Your task to perform on an android device: Empty the shopping cart on costco.com. Add logitech g502 to the cart on costco.com, then select checkout. Image 0: 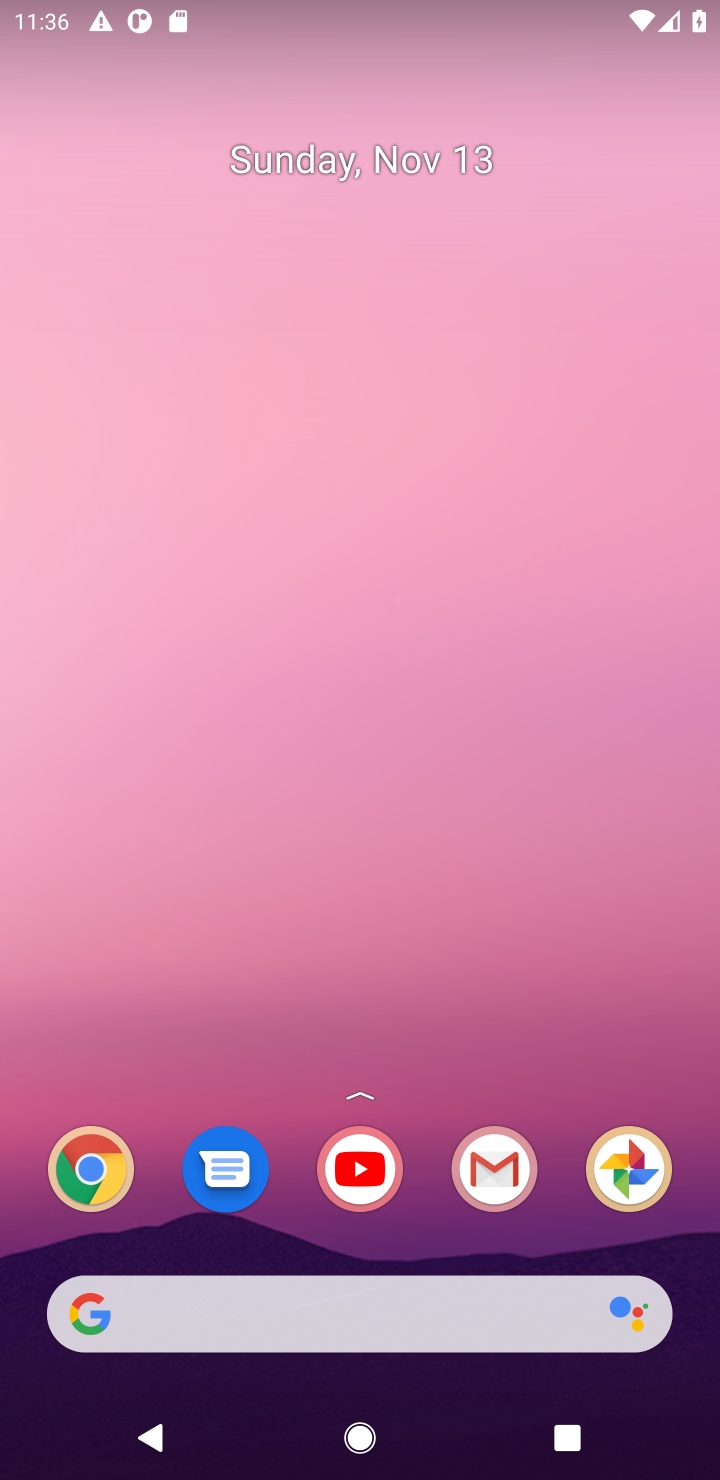
Step 0: drag from (477, 1029) to (600, 17)
Your task to perform on an android device: Empty the shopping cart on costco.com. Add logitech g502 to the cart on costco.com, then select checkout. Image 1: 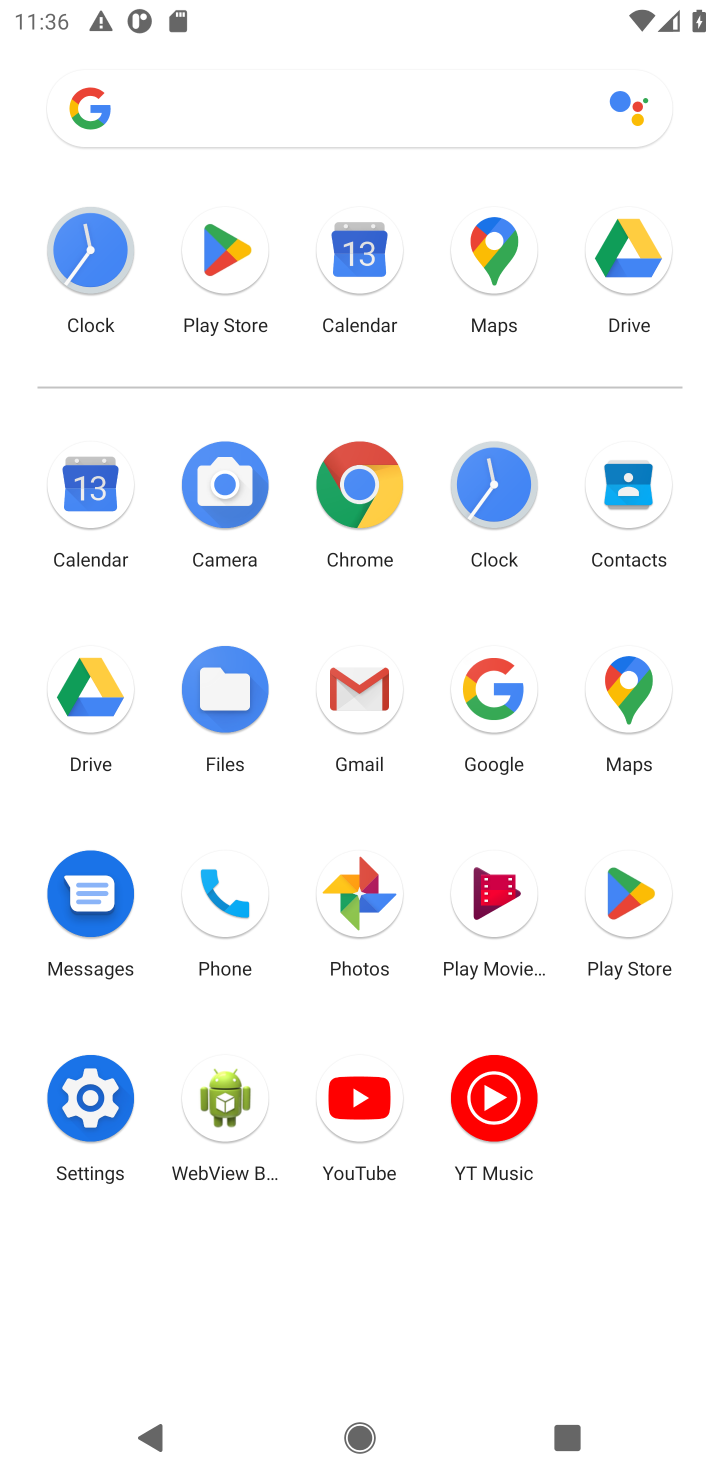
Step 1: click (354, 483)
Your task to perform on an android device: Empty the shopping cart on costco.com. Add logitech g502 to the cart on costco.com, then select checkout. Image 2: 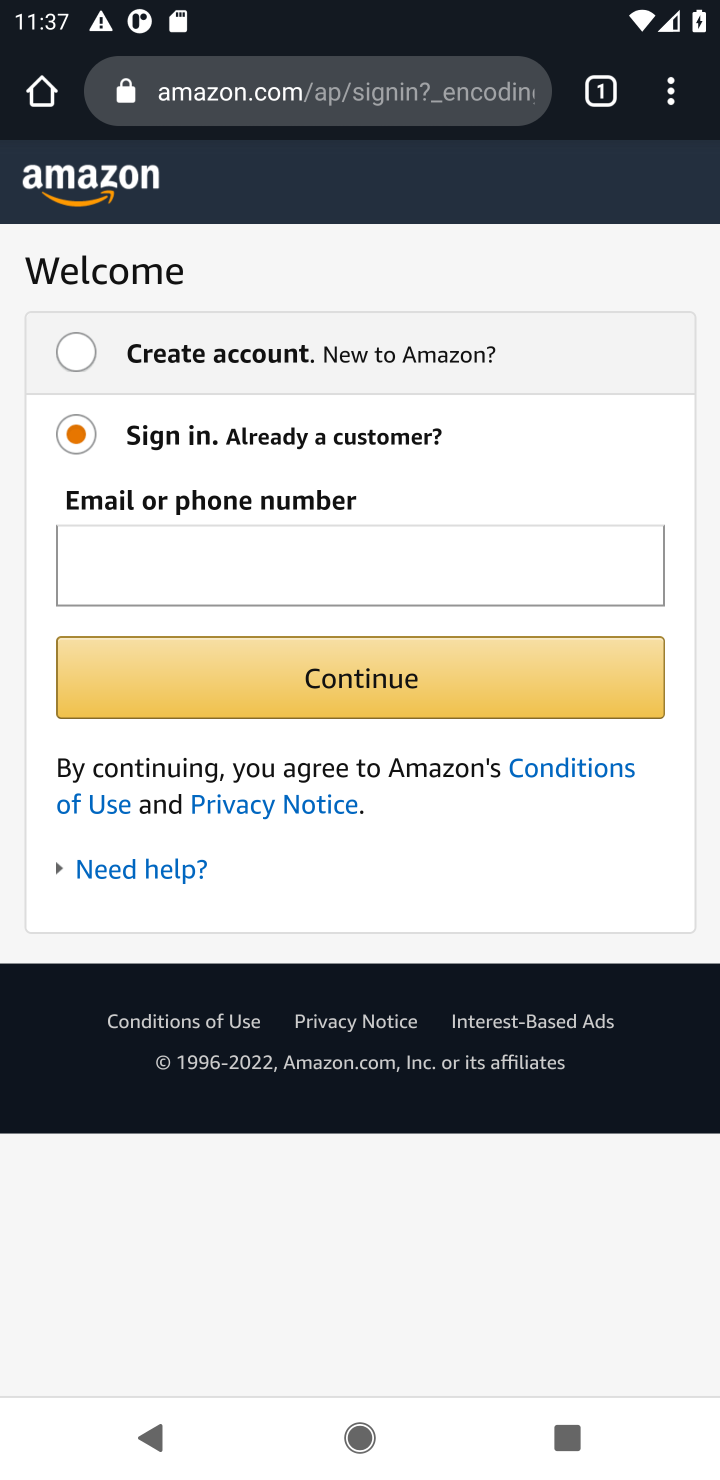
Step 2: click (424, 81)
Your task to perform on an android device: Empty the shopping cart on costco.com. Add logitech g502 to the cart on costco.com, then select checkout. Image 3: 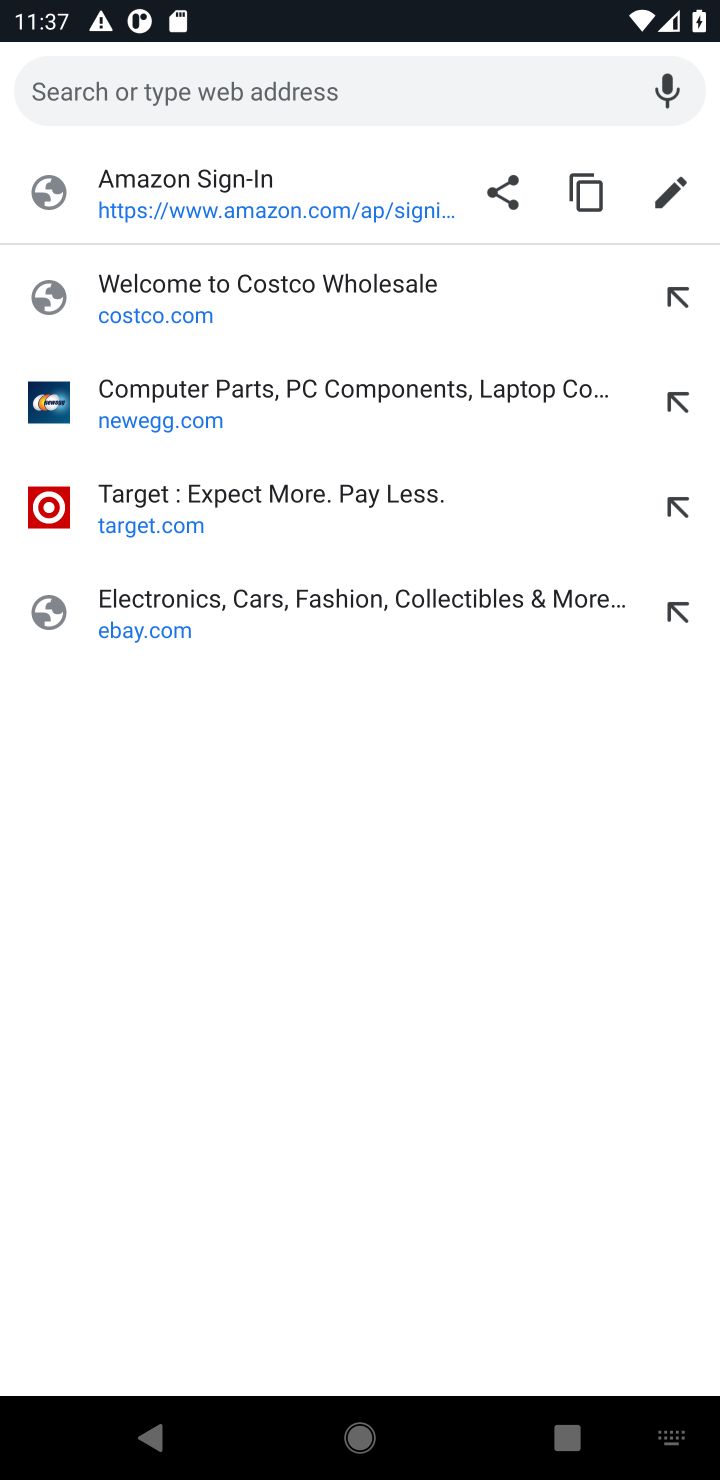
Step 3: type "costco.com"
Your task to perform on an android device: Empty the shopping cart on costco.com. Add logitech g502 to the cart on costco.com, then select checkout. Image 4: 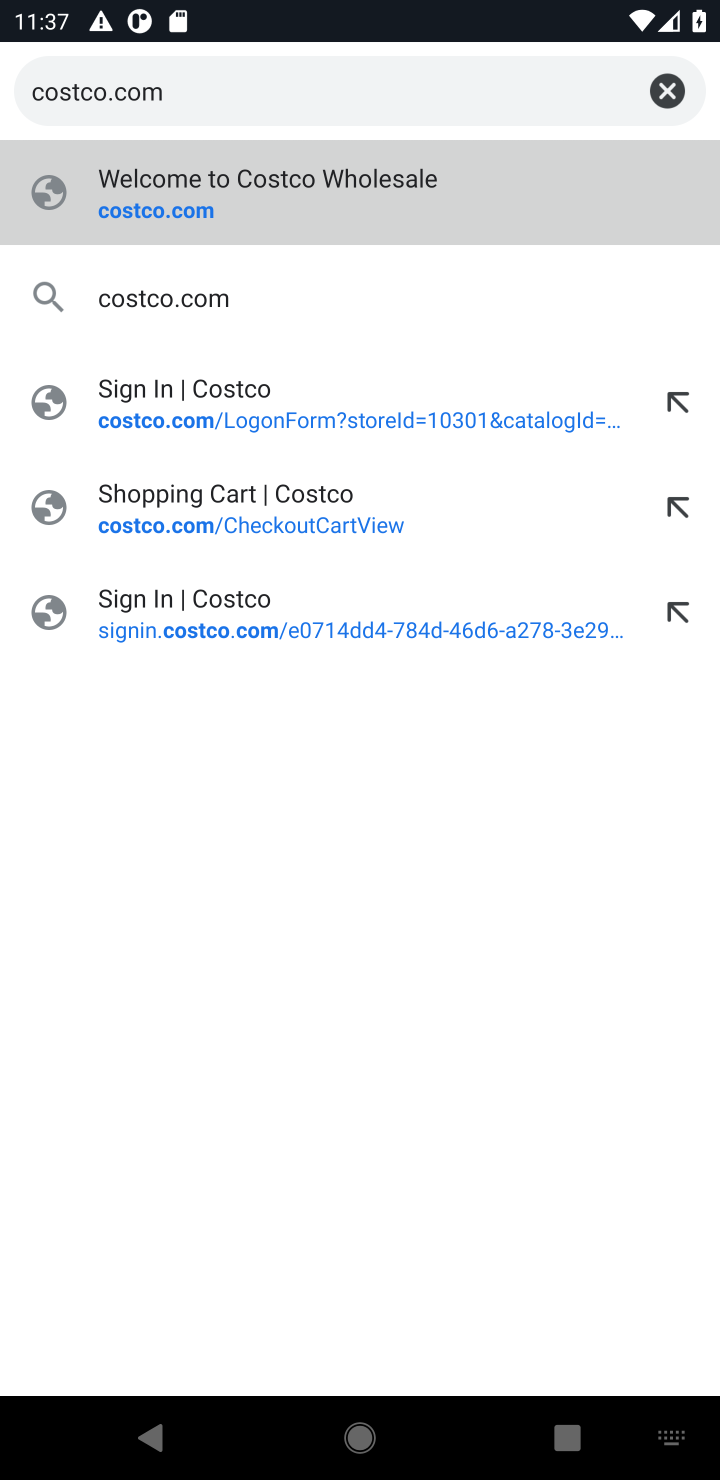
Step 4: press enter
Your task to perform on an android device: Empty the shopping cart on costco.com. Add logitech g502 to the cart on costco.com, then select checkout. Image 5: 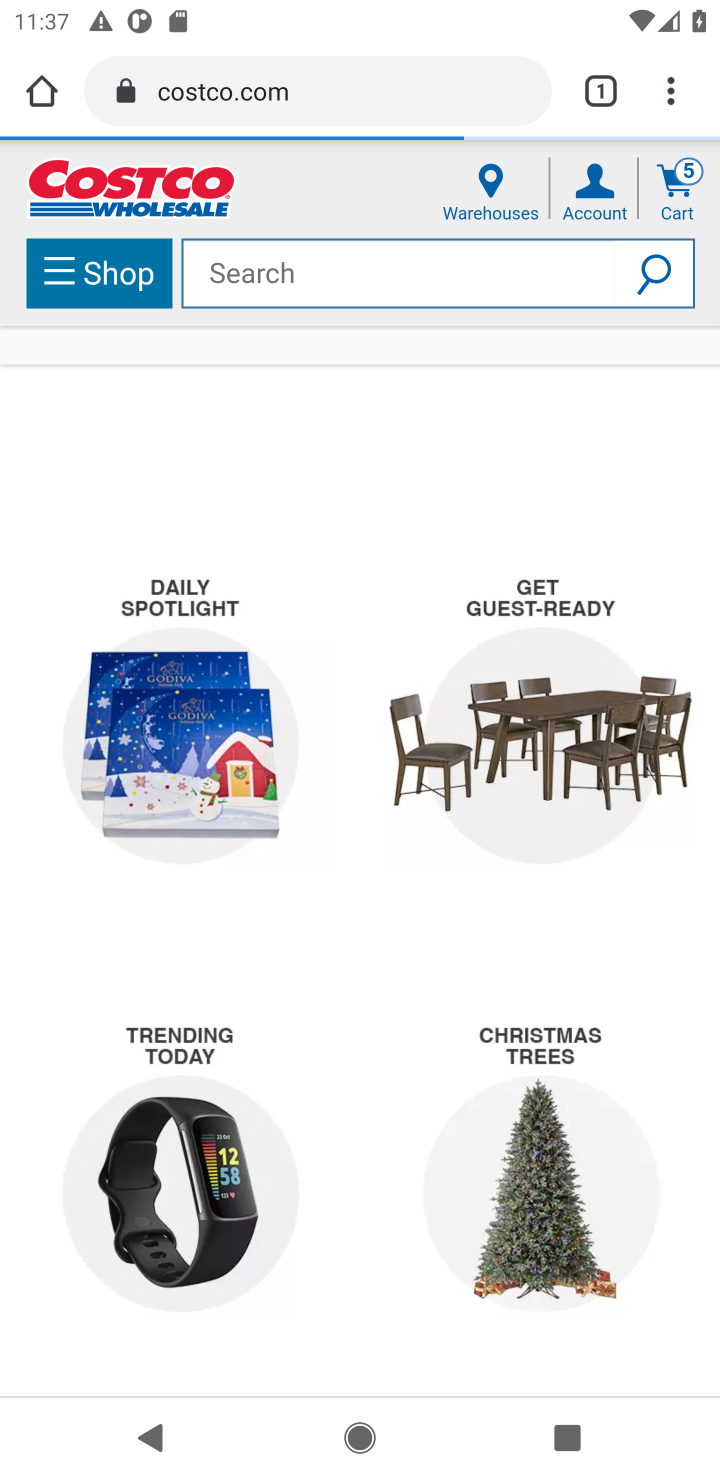
Step 5: click (670, 185)
Your task to perform on an android device: Empty the shopping cart on costco.com. Add logitech g502 to the cart on costco.com, then select checkout. Image 6: 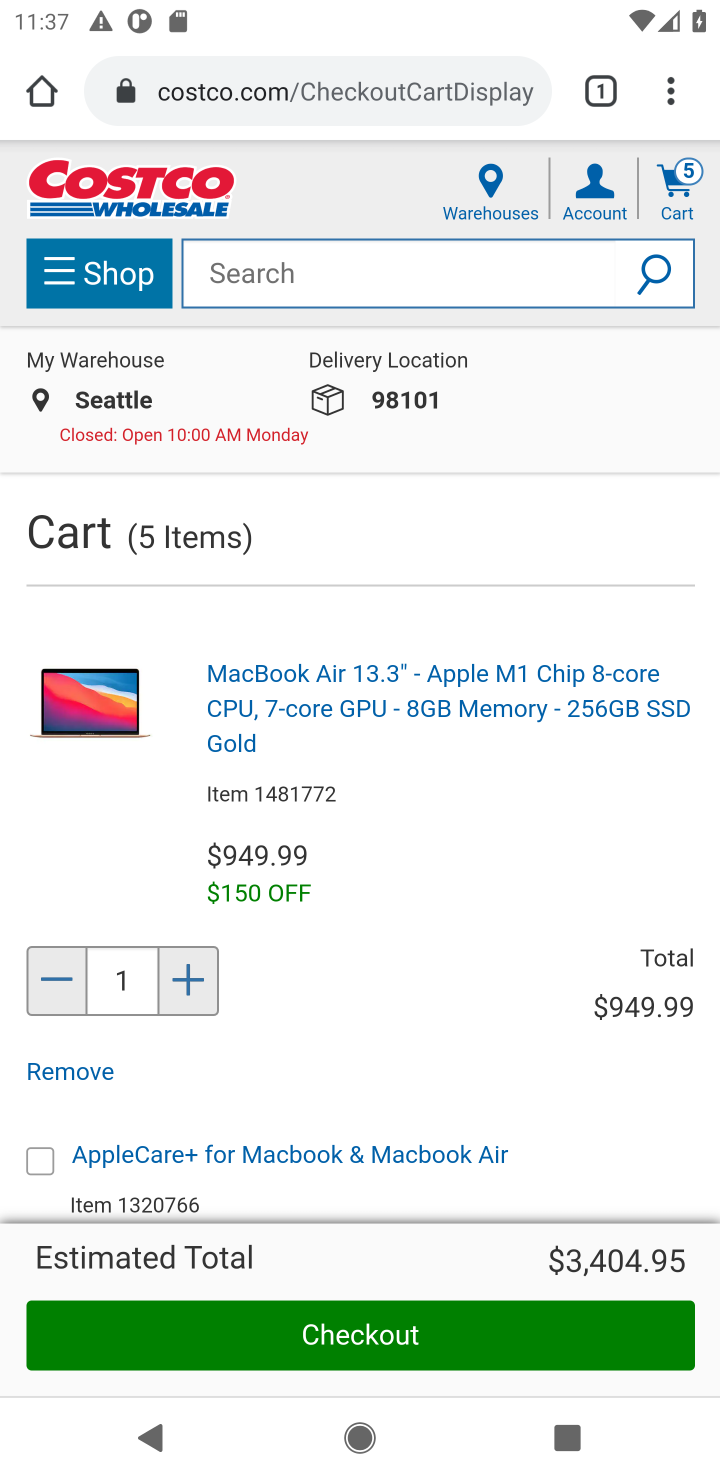
Step 6: click (344, 294)
Your task to perform on an android device: Empty the shopping cart on costco.com. Add logitech g502 to the cart on costco.com, then select checkout. Image 7: 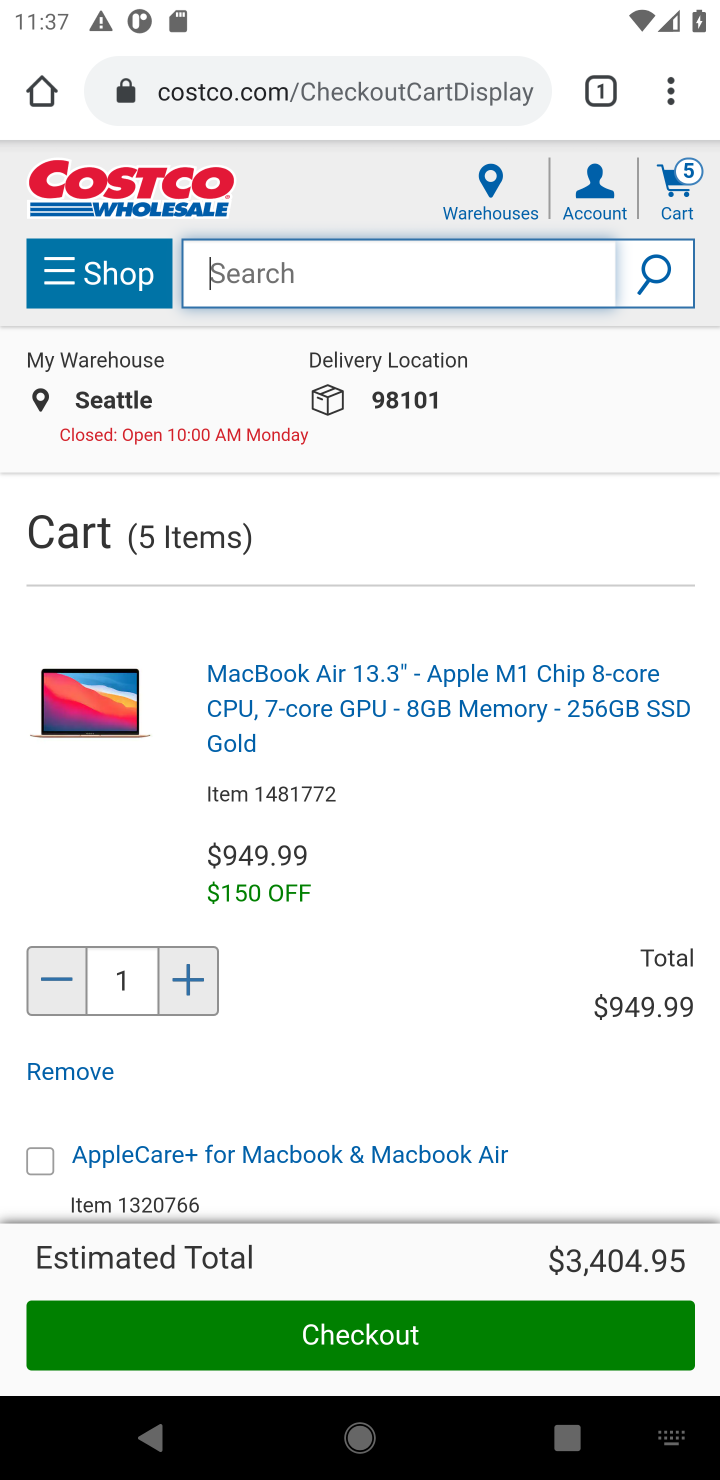
Step 7: type "logitech g502"
Your task to perform on an android device: Empty the shopping cart on costco.com. Add logitech g502 to the cart on costco.com, then select checkout. Image 8: 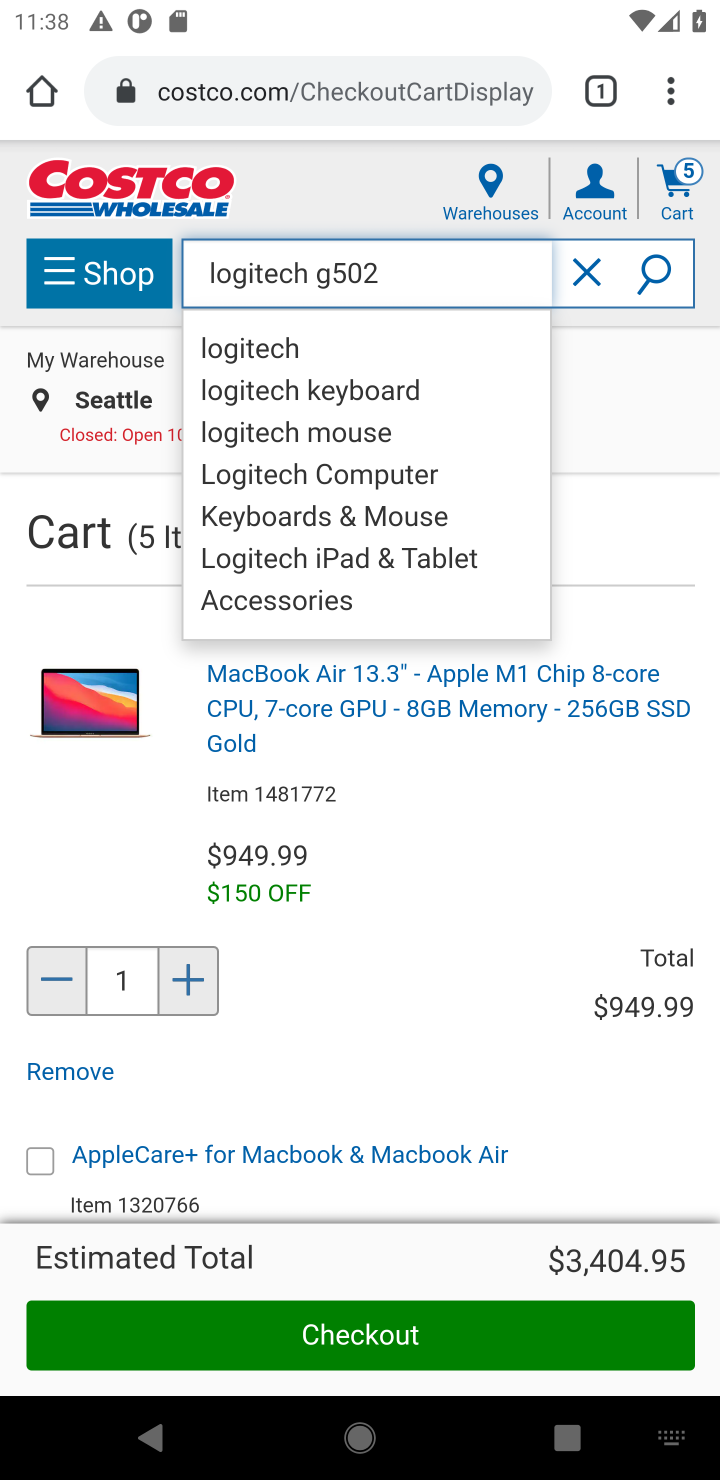
Step 8: press enter
Your task to perform on an android device: Empty the shopping cart on costco.com. Add logitech g502 to the cart on costco.com, then select checkout. Image 9: 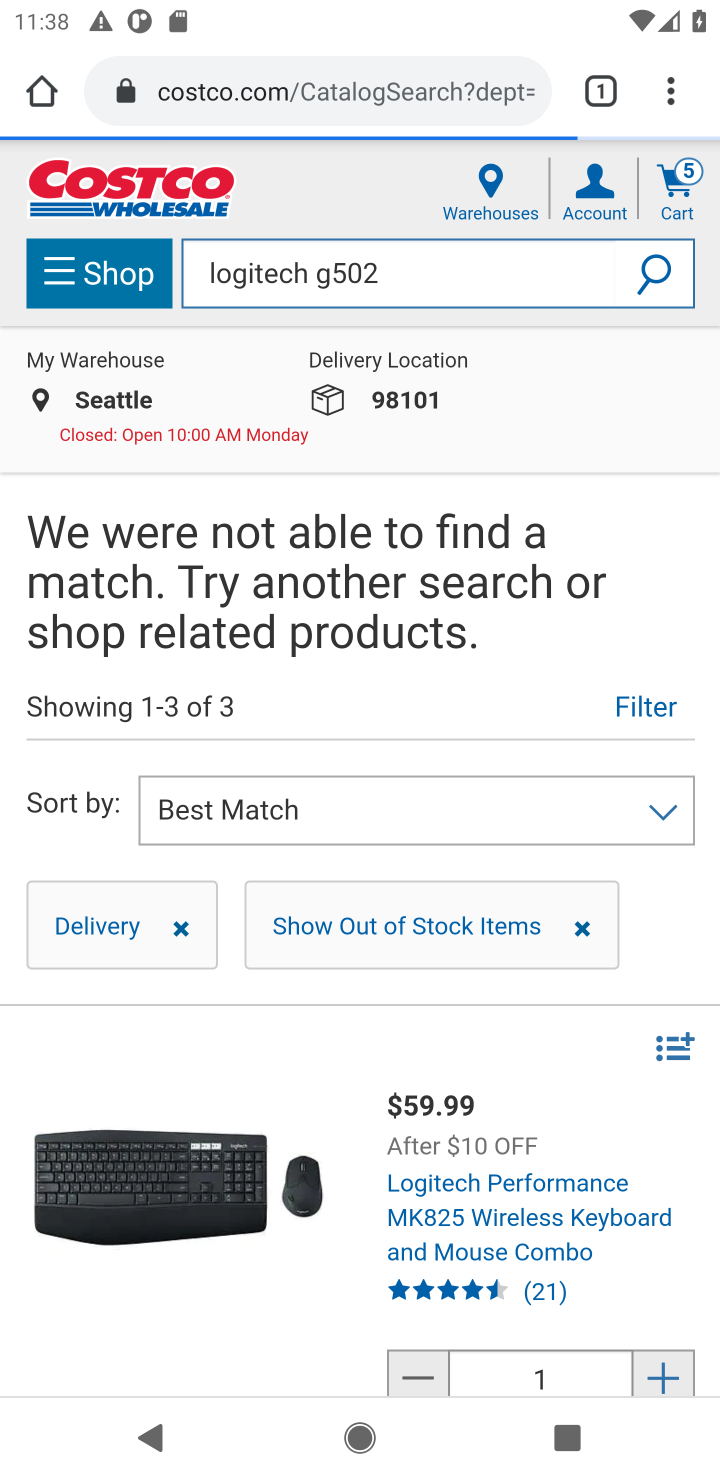
Step 9: task complete